Your task to perform on an android device: Show me recent news Image 0: 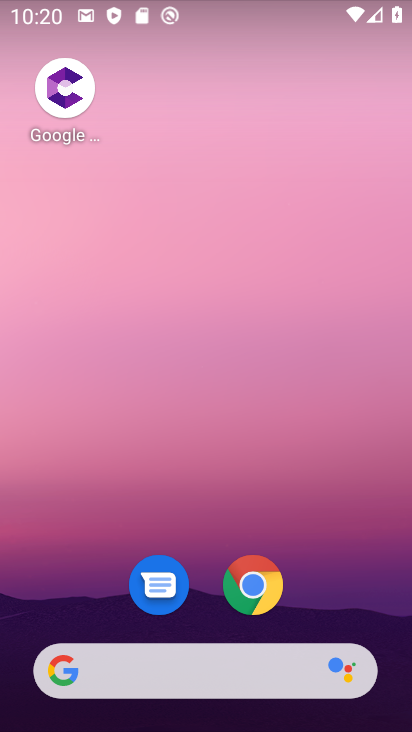
Step 0: click (259, 664)
Your task to perform on an android device: Show me recent news Image 1: 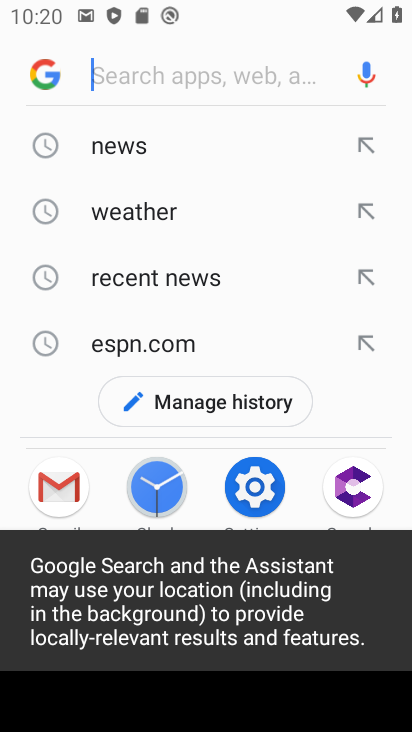
Step 1: click (84, 272)
Your task to perform on an android device: Show me recent news Image 2: 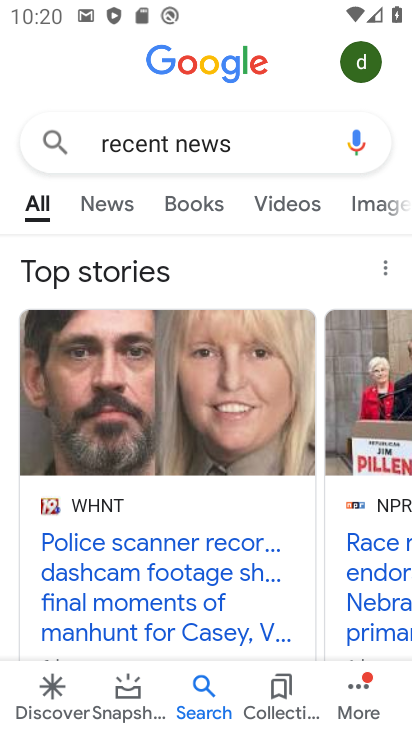
Step 2: click (114, 201)
Your task to perform on an android device: Show me recent news Image 3: 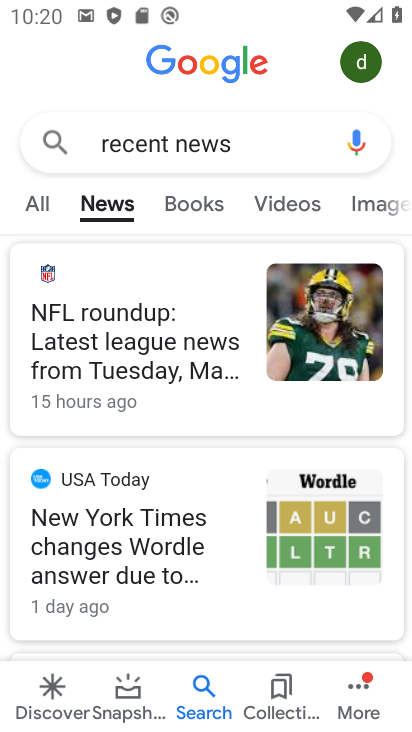
Step 3: task complete